Your task to perform on an android device: Open settings Image 0: 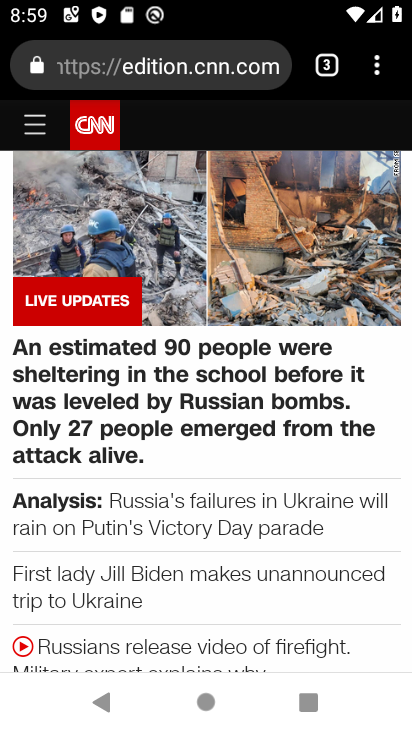
Step 0: press home button
Your task to perform on an android device: Open settings Image 1: 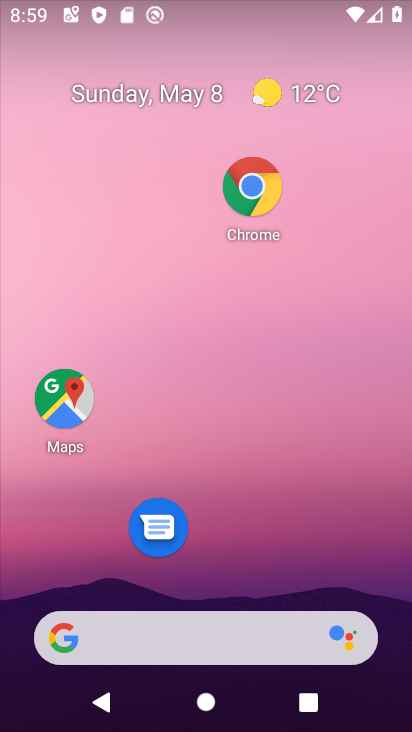
Step 1: drag from (312, 414) to (312, 291)
Your task to perform on an android device: Open settings Image 2: 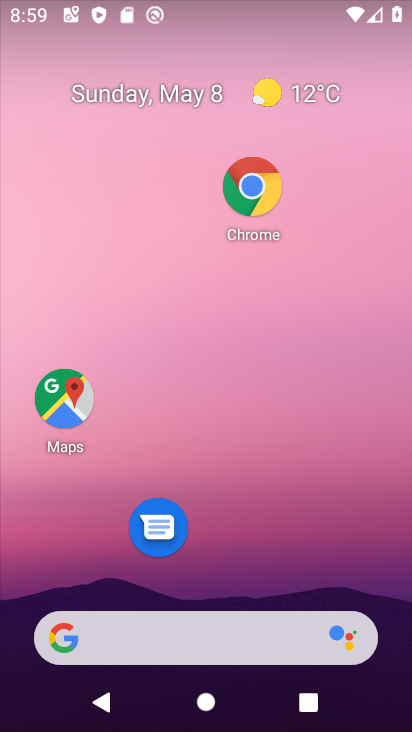
Step 2: drag from (263, 562) to (326, 292)
Your task to perform on an android device: Open settings Image 3: 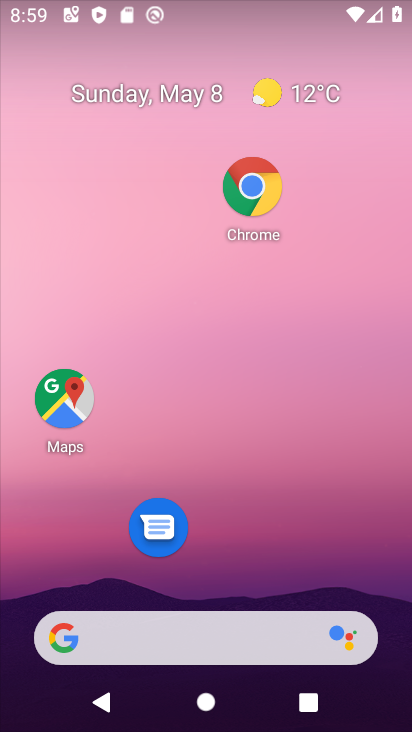
Step 3: drag from (265, 595) to (328, 223)
Your task to perform on an android device: Open settings Image 4: 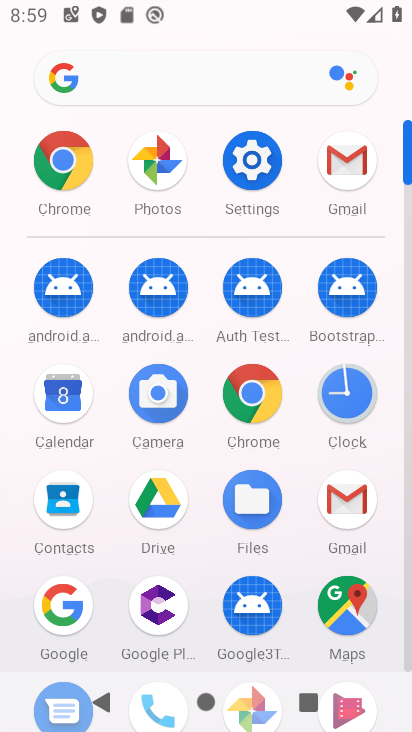
Step 4: click (230, 150)
Your task to perform on an android device: Open settings Image 5: 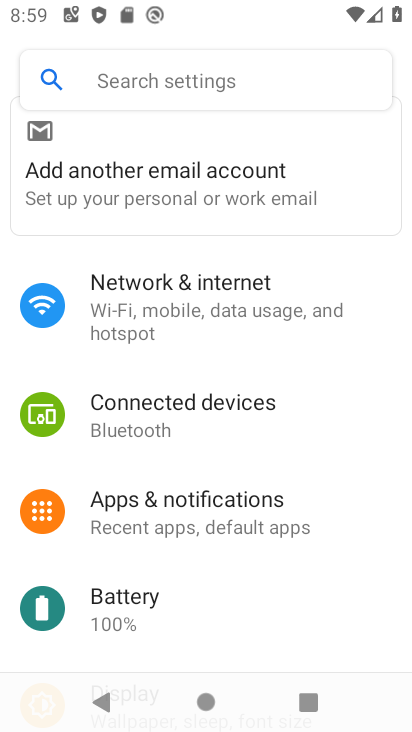
Step 5: task complete